Your task to perform on an android device: Open ESPN.com Image 0: 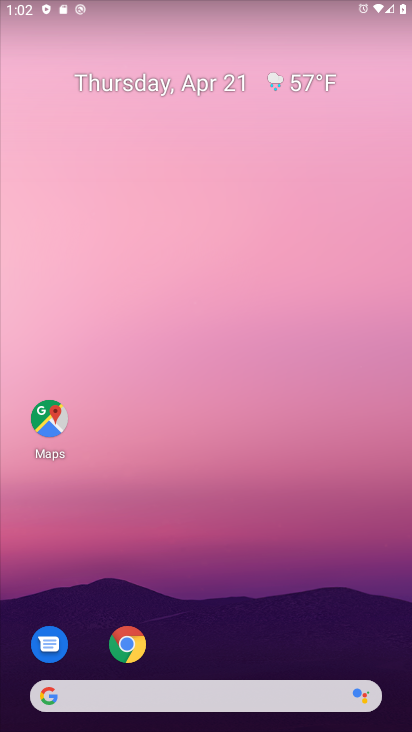
Step 0: click (126, 640)
Your task to perform on an android device: Open ESPN.com Image 1: 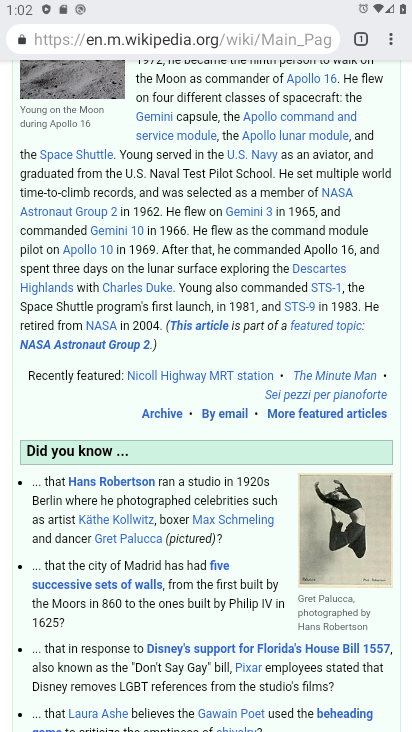
Step 1: click (358, 31)
Your task to perform on an android device: Open ESPN.com Image 2: 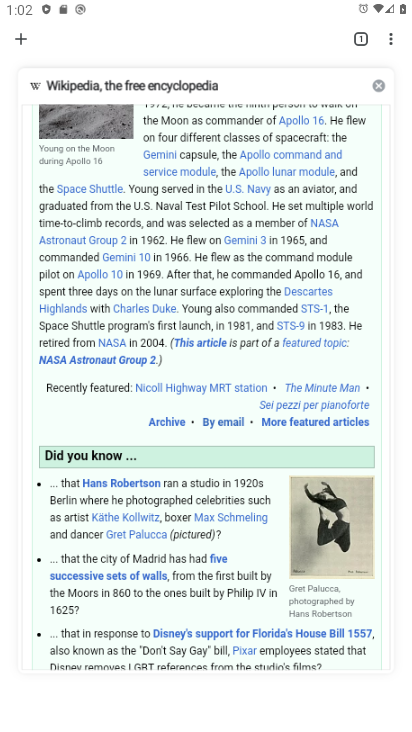
Step 2: click (14, 38)
Your task to perform on an android device: Open ESPN.com Image 3: 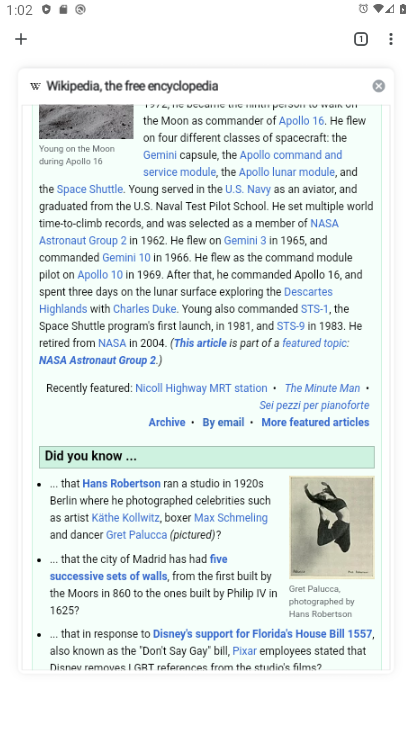
Step 3: click (21, 33)
Your task to perform on an android device: Open ESPN.com Image 4: 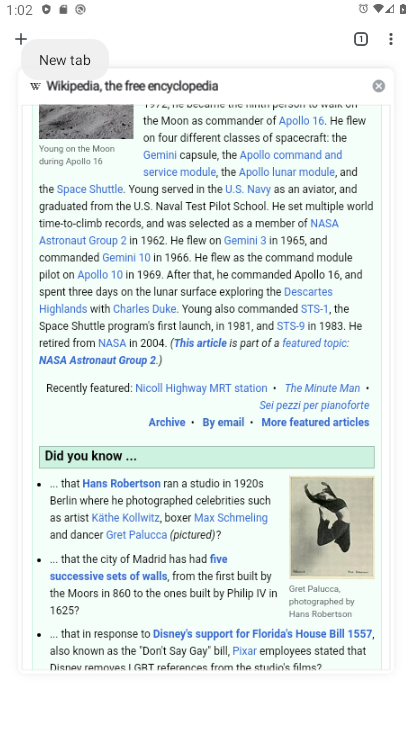
Step 4: click (24, 40)
Your task to perform on an android device: Open ESPN.com Image 5: 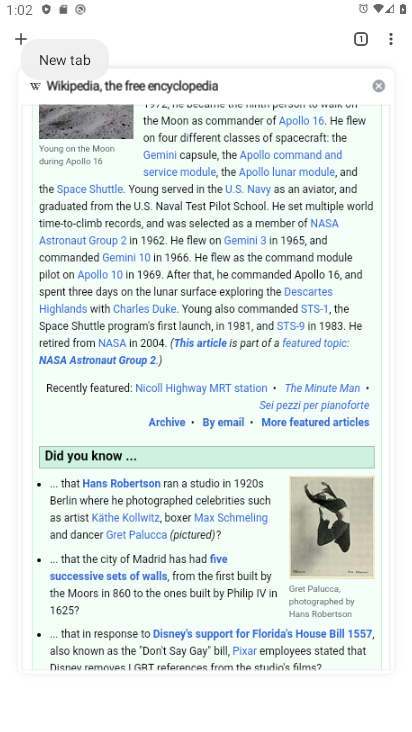
Step 5: click (17, 32)
Your task to perform on an android device: Open ESPN.com Image 6: 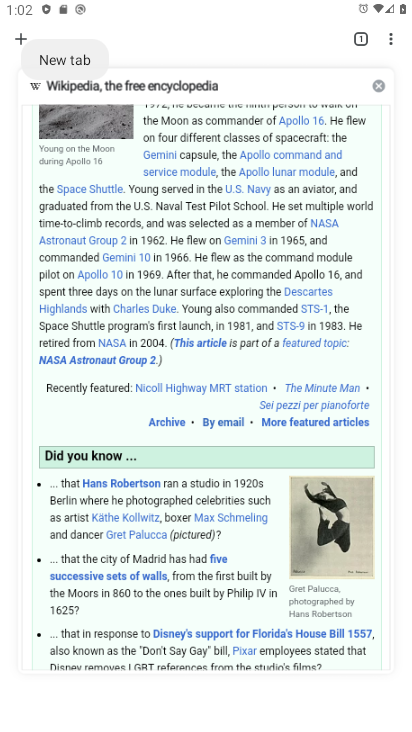
Step 6: click (17, 32)
Your task to perform on an android device: Open ESPN.com Image 7: 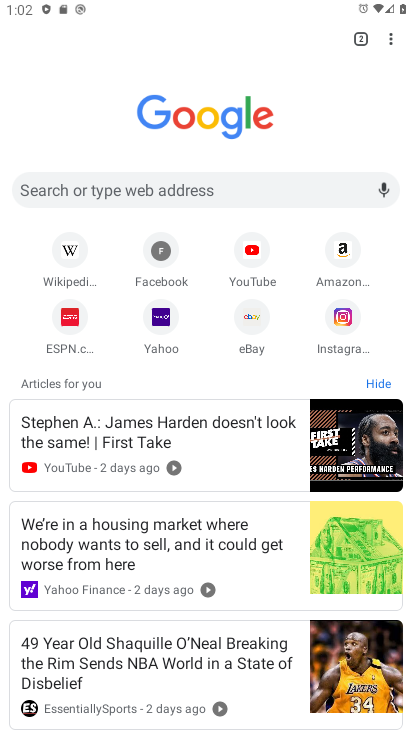
Step 7: click (65, 321)
Your task to perform on an android device: Open ESPN.com Image 8: 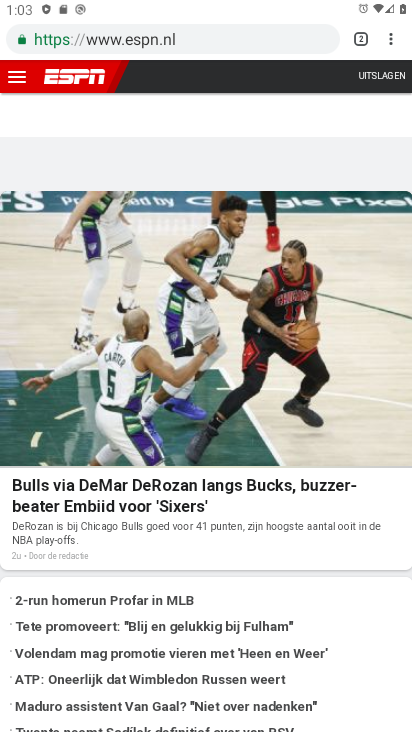
Step 8: task complete